Your task to perform on an android device: turn on wifi Image 0: 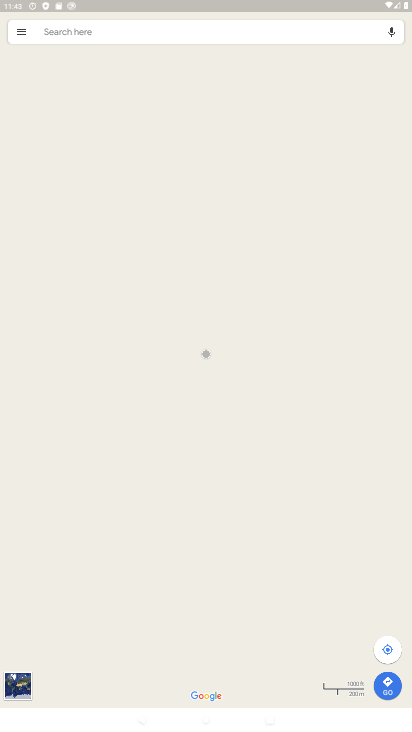
Step 0: press home button
Your task to perform on an android device: turn on wifi Image 1: 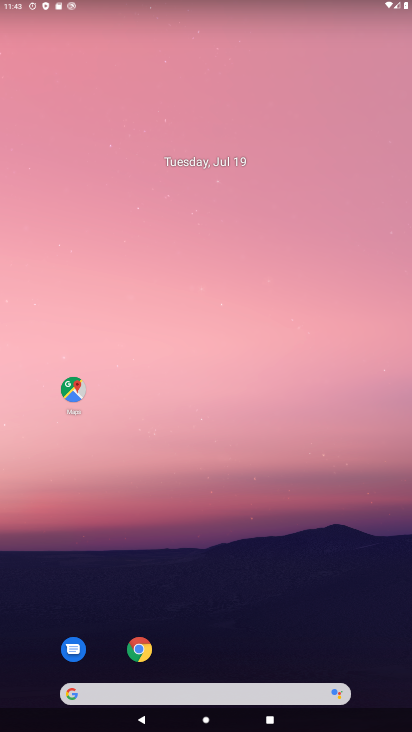
Step 1: drag from (236, 726) to (232, 196)
Your task to perform on an android device: turn on wifi Image 2: 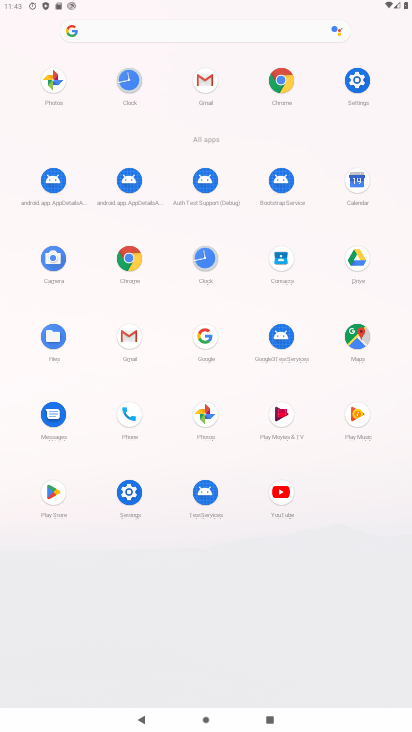
Step 2: click (359, 76)
Your task to perform on an android device: turn on wifi Image 3: 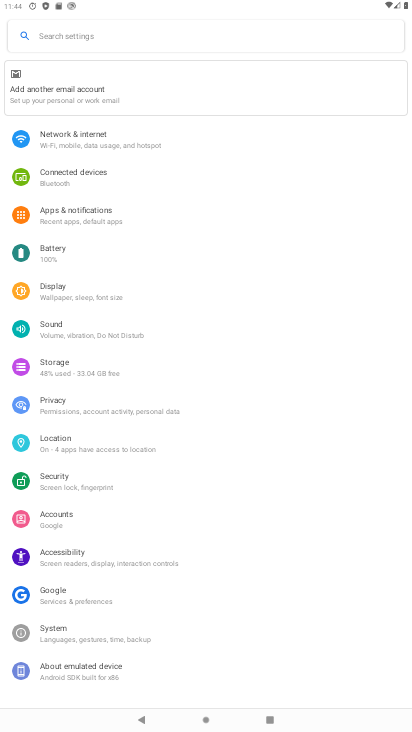
Step 3: click (62, 142)
Your task to perform on an android device: turn on wifi Image 4: 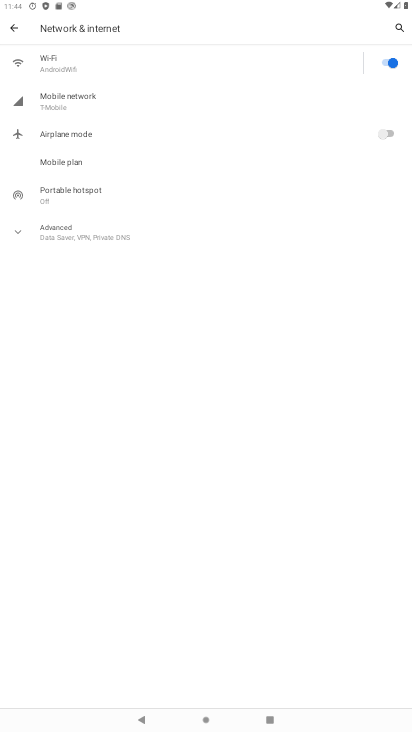
Step 4: task complete